Your task to perform on an android device: change alarm snooze length Image 0: 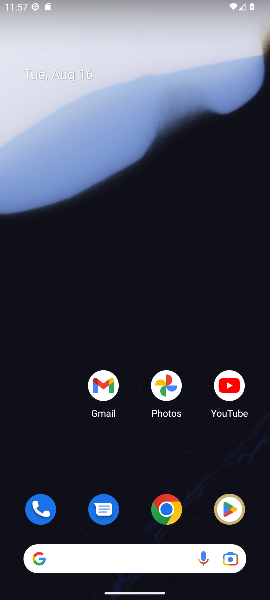
Step 0: drag from (136, 532) to (194, 118)
Your task to perform on an android device: change alarm snooze length Image 1: 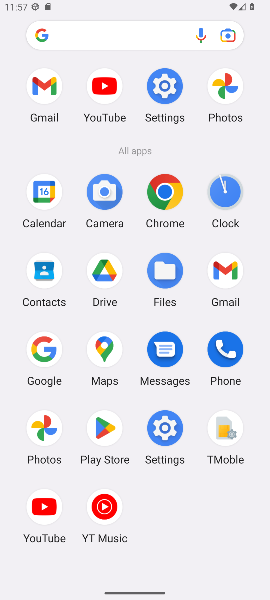
Step 1: click (212, 191)
Your task to perform on an android device: change alarm snooze length Image 2: 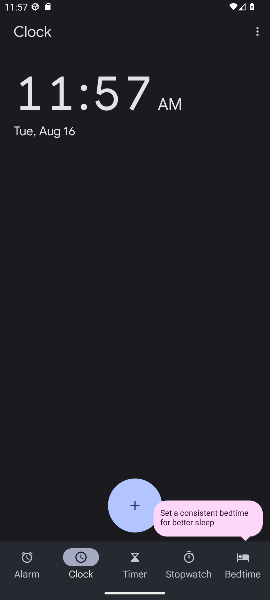
Step 2: click (259, 36)
Your task to perform on an android device: change alarm snooze length Image 3: 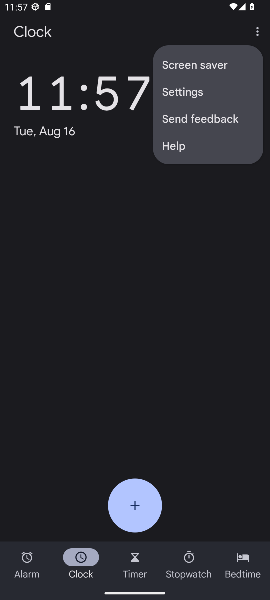
Step 3: click (193, 101)
Your task to perform on an android device: change alarm snooze length Image 4: 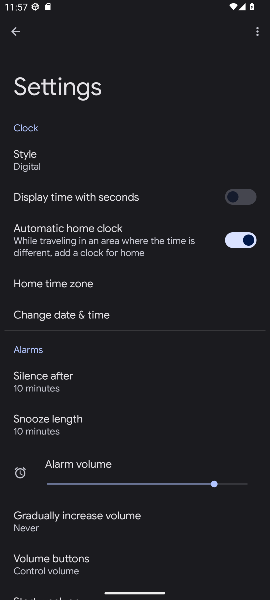
Step 4: click (56, 427)
Your task to perform on an android device: change alarm snooze length Image 5: 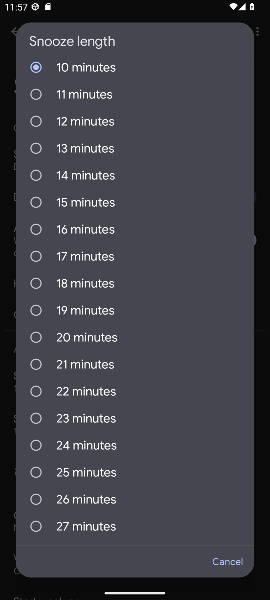
Step 5: click (37, 233)
Your task to perform on an android device: change alarm snooze length Image 6: 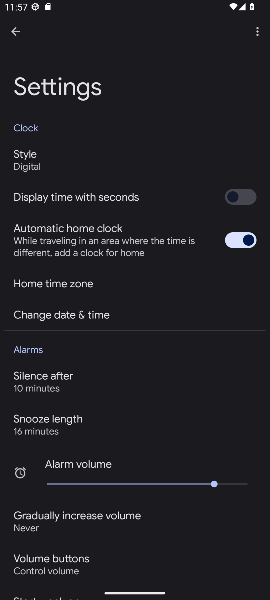
Step 6: task complete